Your task to perform on an android device: change timer sound Image 0: 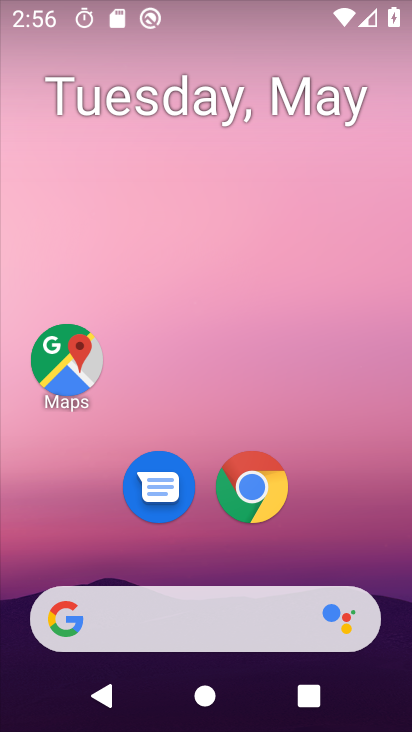
Step 0: click (356, 314)
Your task to perform on an android device: change timer sound Image 1: 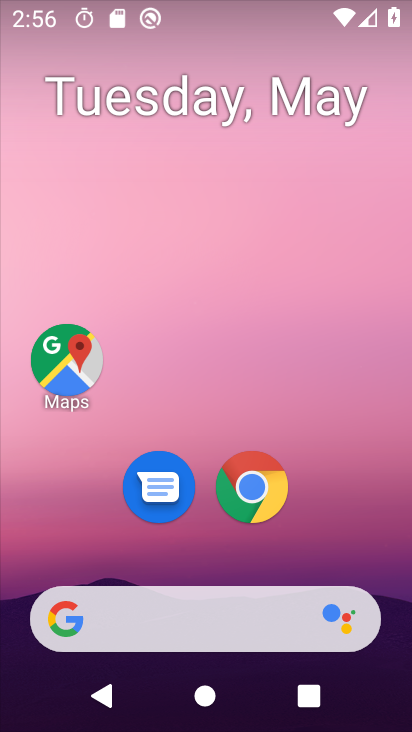
Step 1: drag from (379, 497) to (361, 279)
Your task to perform on an android device: change timer sound Image 2: 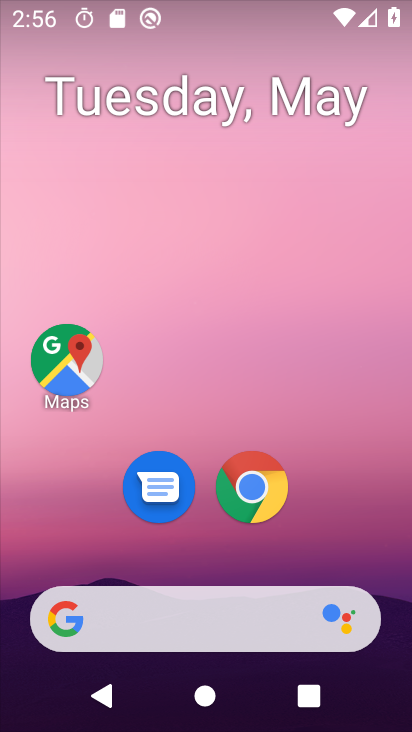
Step 2: drag from (392, 619) to (360, 279)
Your task to perform on an android device: change timer sound Image 3: 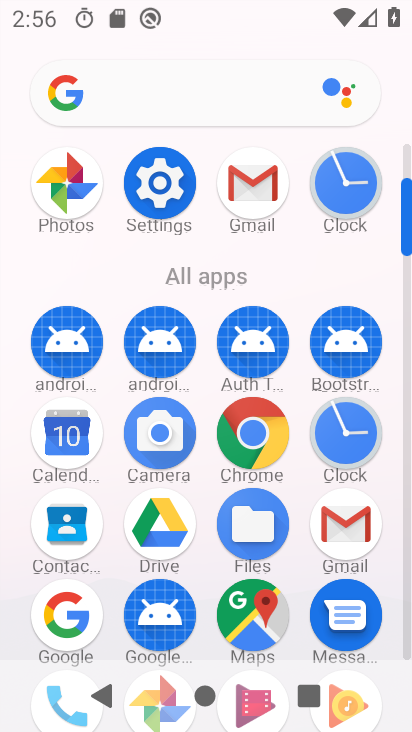
Step 3: click (344, 434)
Your task to perform on an android device: change timer sound Image 4: 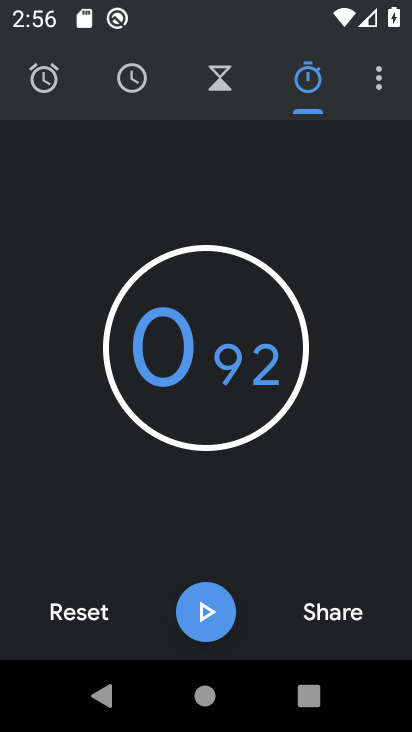
Step 4: click (100, 609)
Your task to perform on an android device: change timer sound Image 5: 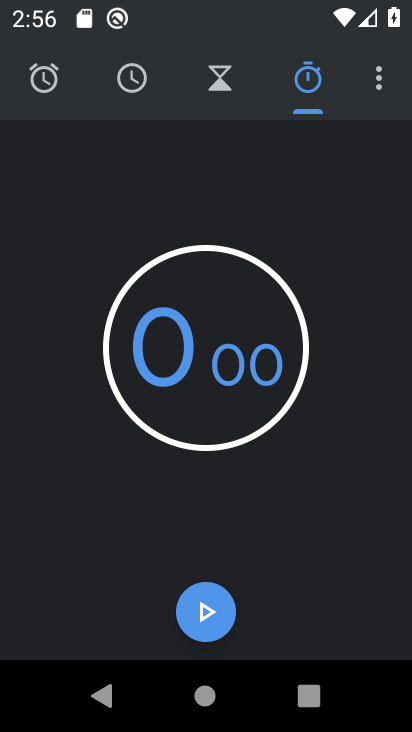
Step 5: click (368, 84)
Your task to perform on an android device: change timer sound Image 6: 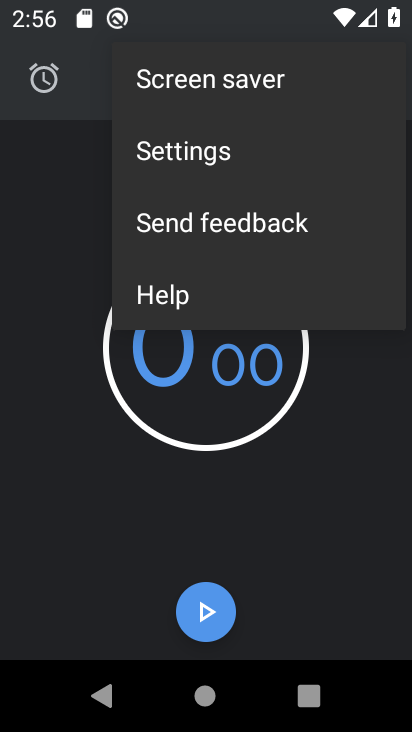
Step 6: click (197, 145)
Your task to perform on an android device: change timer sound Image 7: 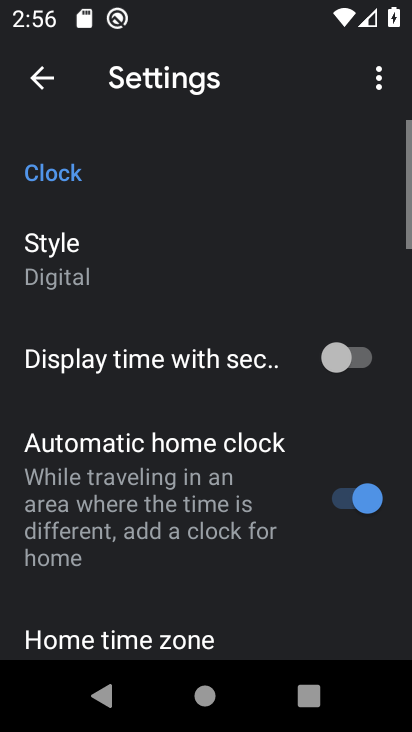
Step 7: drag from (215, 515) to (205, 257)
Your task to perform on an android device: change timer sound Image 8: 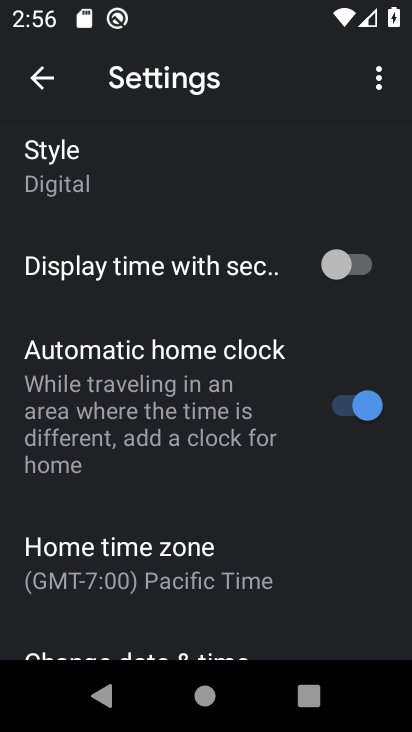
Step 8: drag from (207, 591) to (218, 373)
Your task to perform on an android device: change timer sound Image 9: 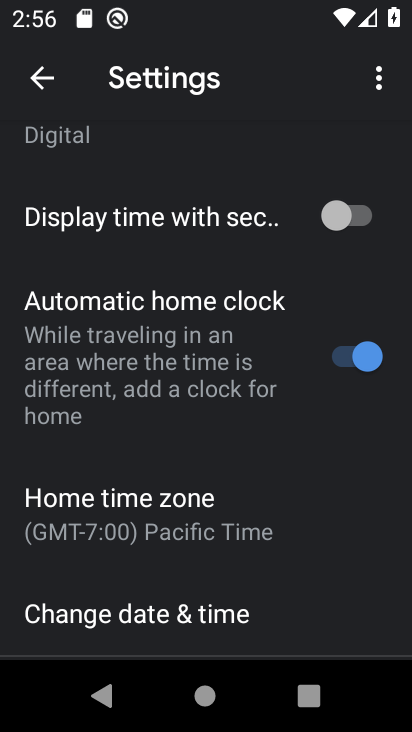
Step 9: drag from (253, 470) to (255, 368)
Your task to perform on an android device: change timer sound Image 10: 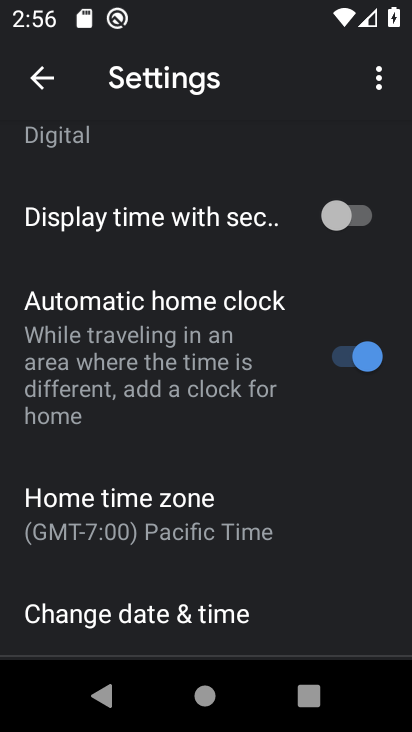
Step 10: drag from (274, 457) to (293, 225)
Your task to perform on an android device: change timer sound Image 11: 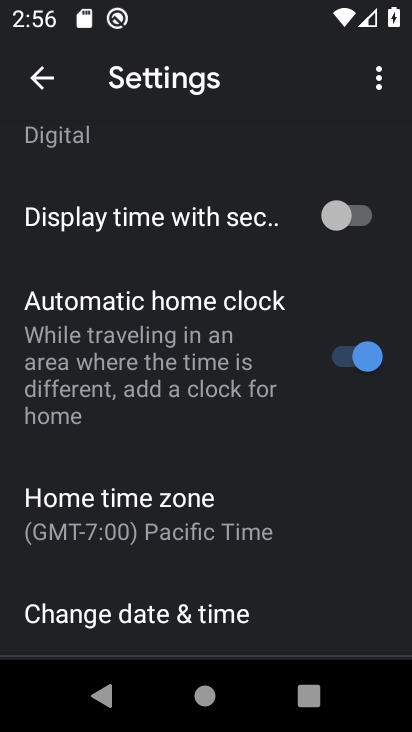
Step 11: drag from (192, 603) to (251, 239)
Your task to perform on an android device: change timer sound Image 12: 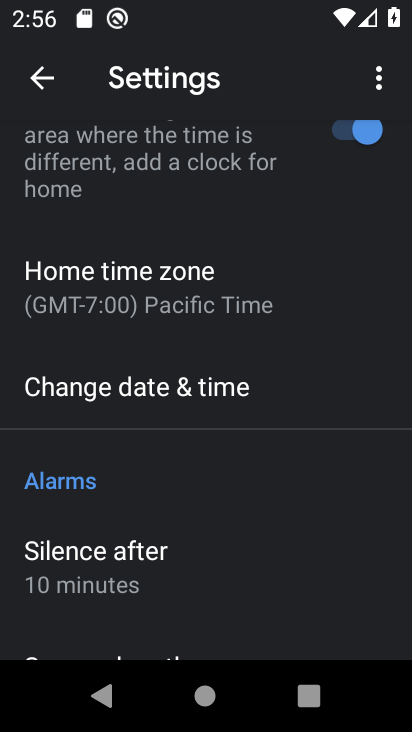
Step 12: drag from (232, 593) to (247, 250)
Your task to perform on an android device: change timer sound Image 13: 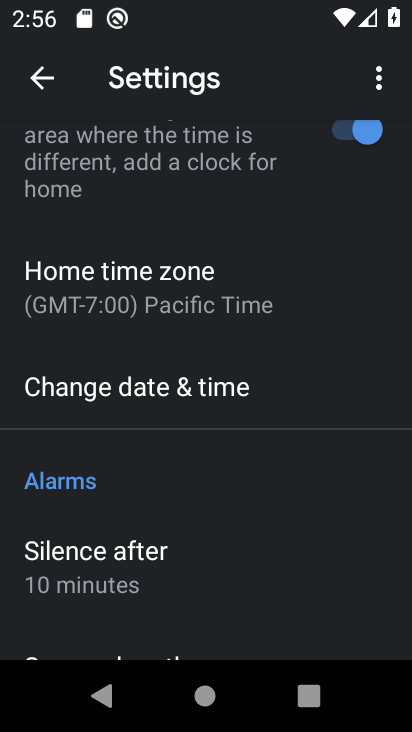
Step 13: drag from (237, 416) to (251, 293)
Your task to perform on an android device: change timer sound Image 14: 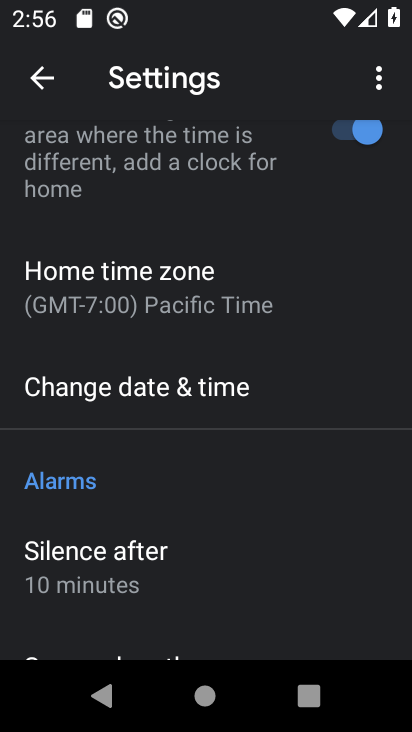
Step 14: drag from (265, 590) to (299, 301)
Your task to perform on an android device: change timer sound Image 15: 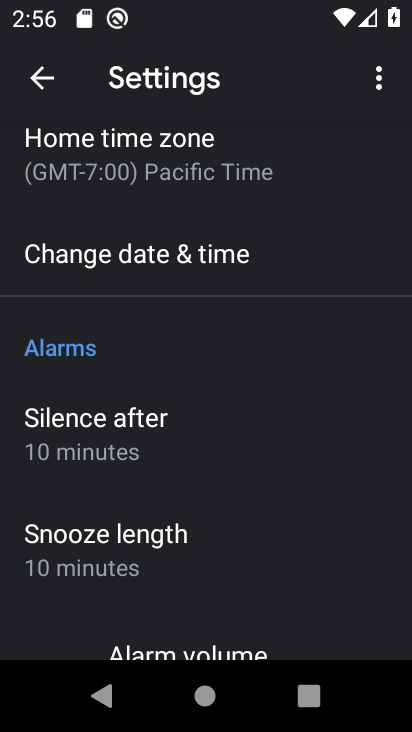
Step 15: drag from (227, 597) to (253, 362)
Your task to perform on an android device: change timer sound Image 16: 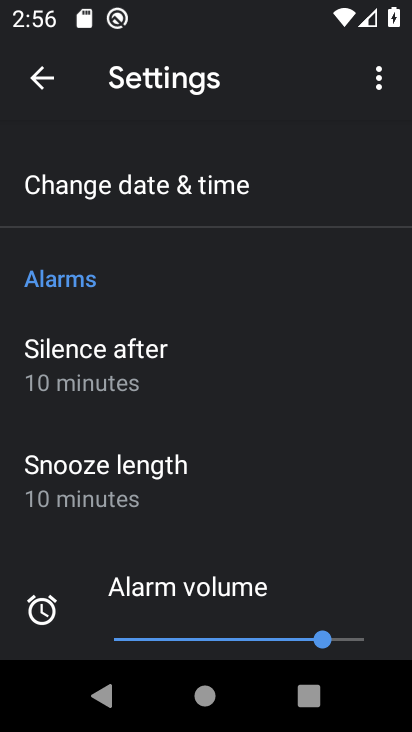
Step 16: drag from (292, 391) to (316, 277)
Your task to perform on an android device: change timer sound Image 17: 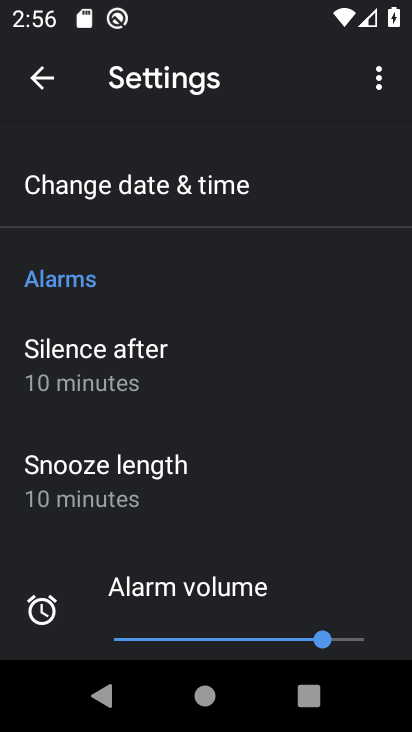
Step 17: drag from (274, 569) to (256, 273)
Your task to perform on an android device: change timer sound Image 18: 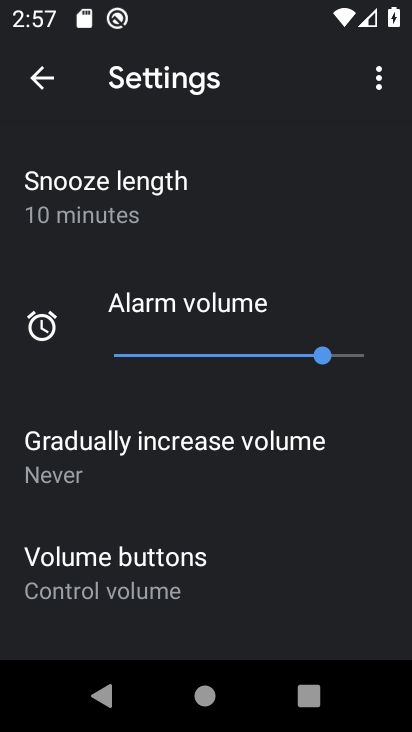
Step 18: click (332, 334)
Your task to perform on an android device: change timer sound Image 19: 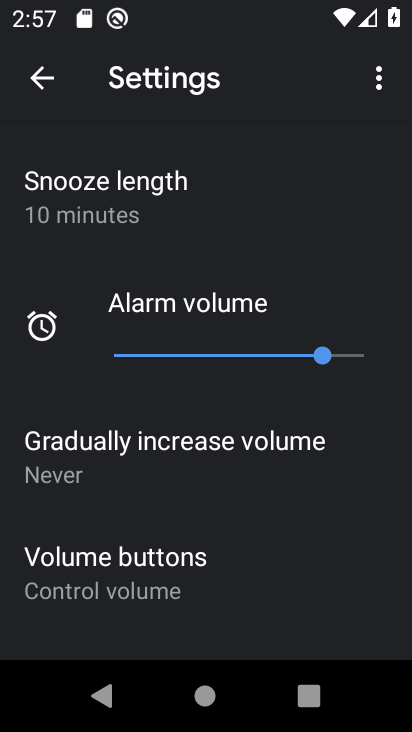
Step 19: drag from (220, 623) to (234, 264)
Your task to perform on an android device: change timer sound Image 20: 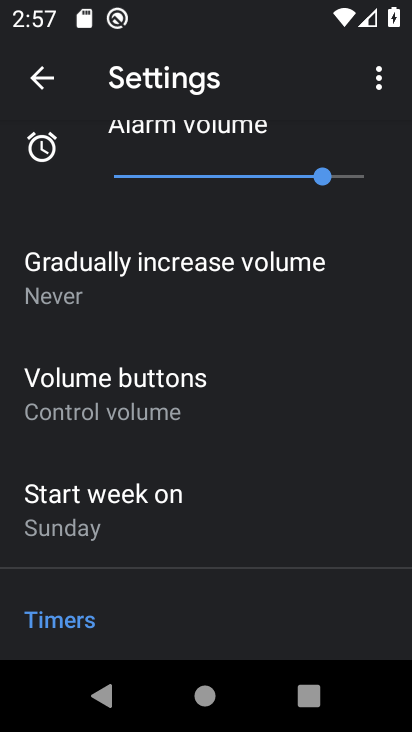
Step 20: drag from (274, 513) to (287, 243)
Your task to perform on an android device: change timer sound Image 21: 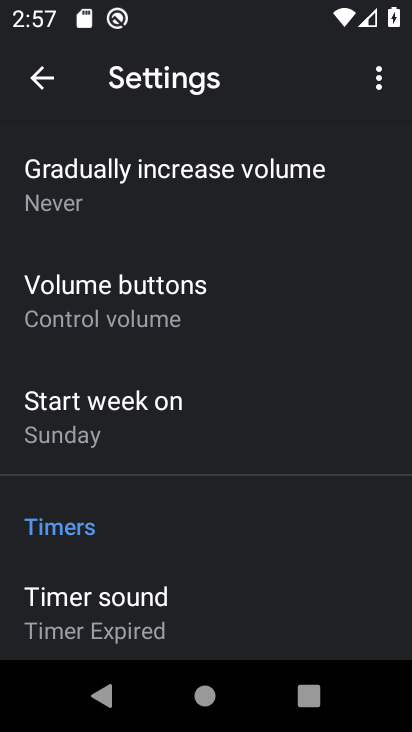
Step 21: click (105, 611)
Your task to perform on an android device: change timer sound Image 22: 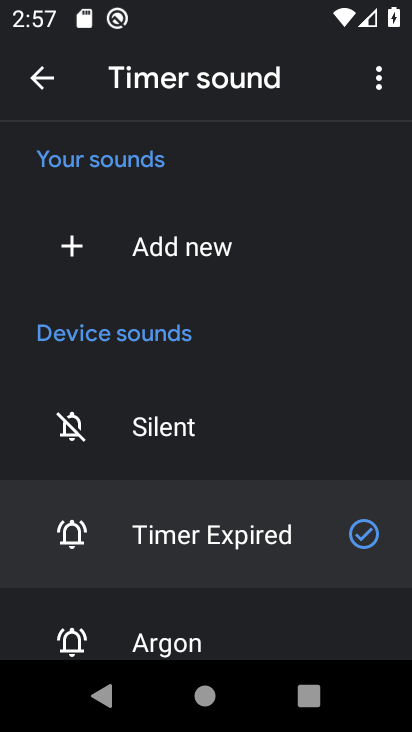
Step 22: click (145, 644)
Your task to perform on an android device: change timer sound Image 23: 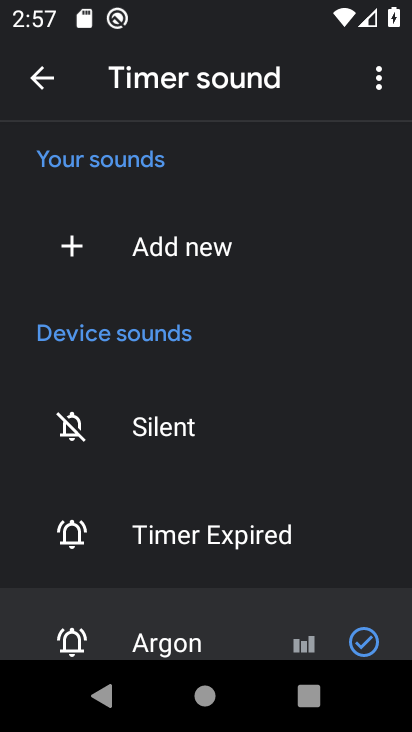
Step 23: task complete